Your task to perform on an android device: Open notification settings Image 0: 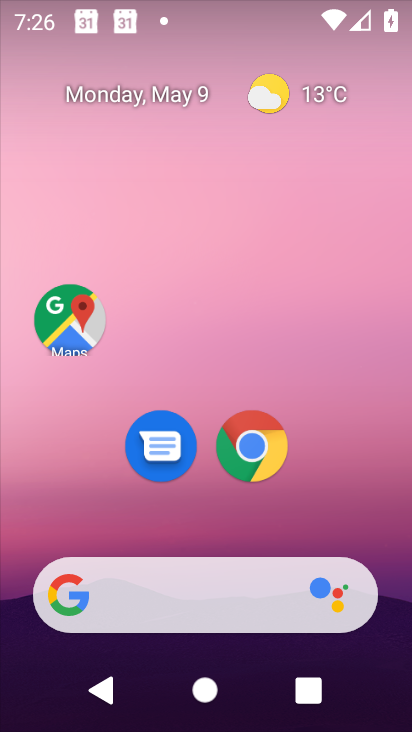
Step 0: drag from (315, 499) to (308, 180)
Your task to perform on an android device: Open notification settings Image 1: 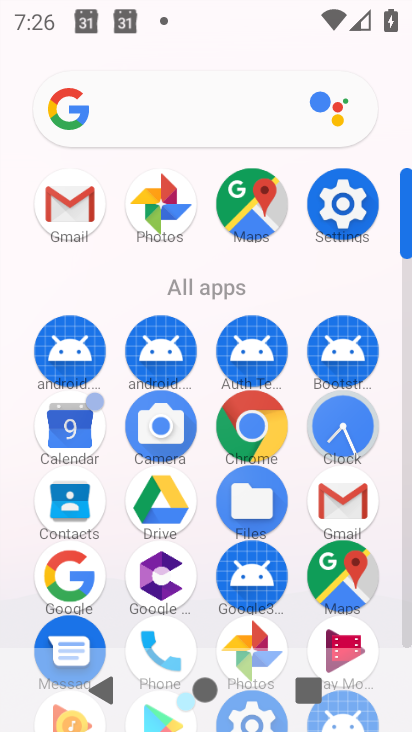
Step 1: click (340, 218)
Your task to perform on an android device: Open notification settings Image 2: 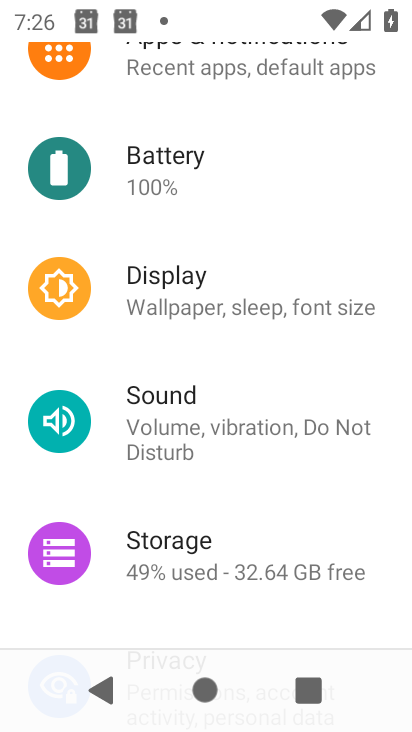
Step 2: drag from (246, 119) to (246, 563)
Your task to perform on an android device: Open notification settings Image 3: 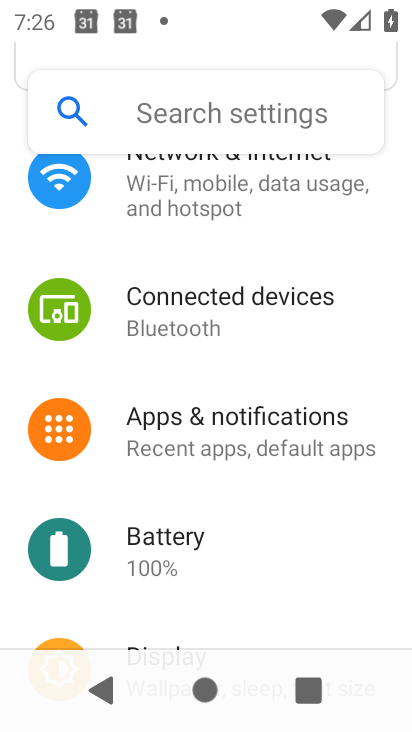
Step 3: drag from (256, 268) to (260, 481)
Your task to perform on an android device: Open notification settings Image 4: 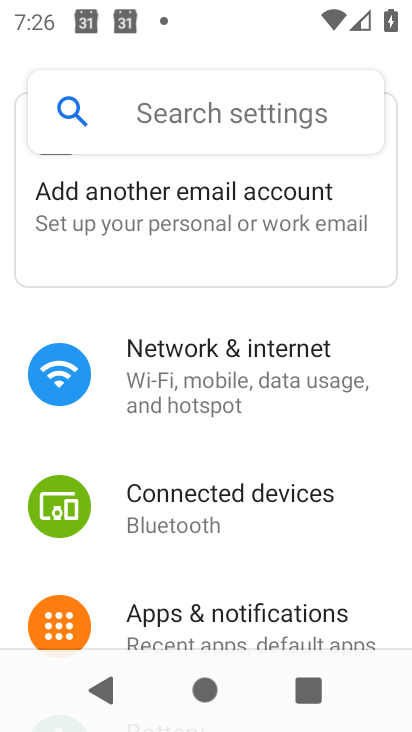
Step 4: click (246, 607)
Your task to perform on an android device: Open notification settings Image 5: 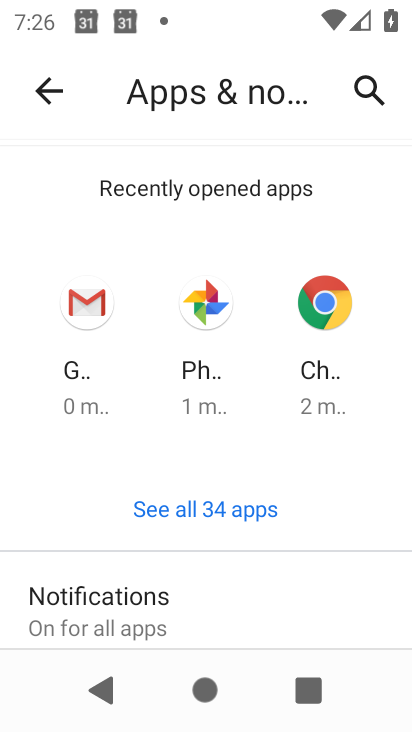
Step 5: click (227, 604)
Your task to perform on an android device: Open notification settings Image 6: 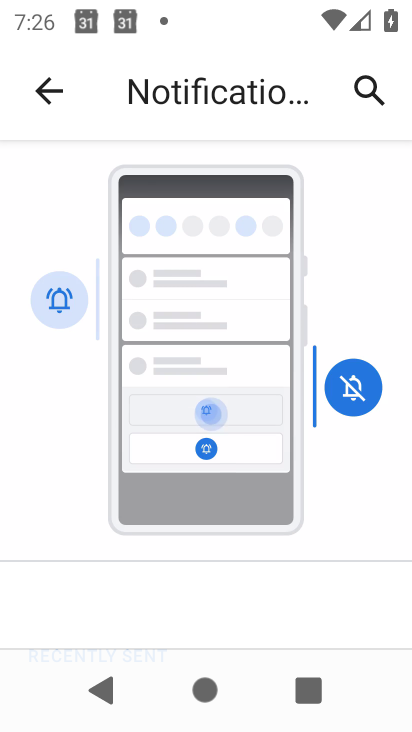
Step 6: task complete